Your task to perform on an android device: turn on showing notifications on the lock screen Image 0: 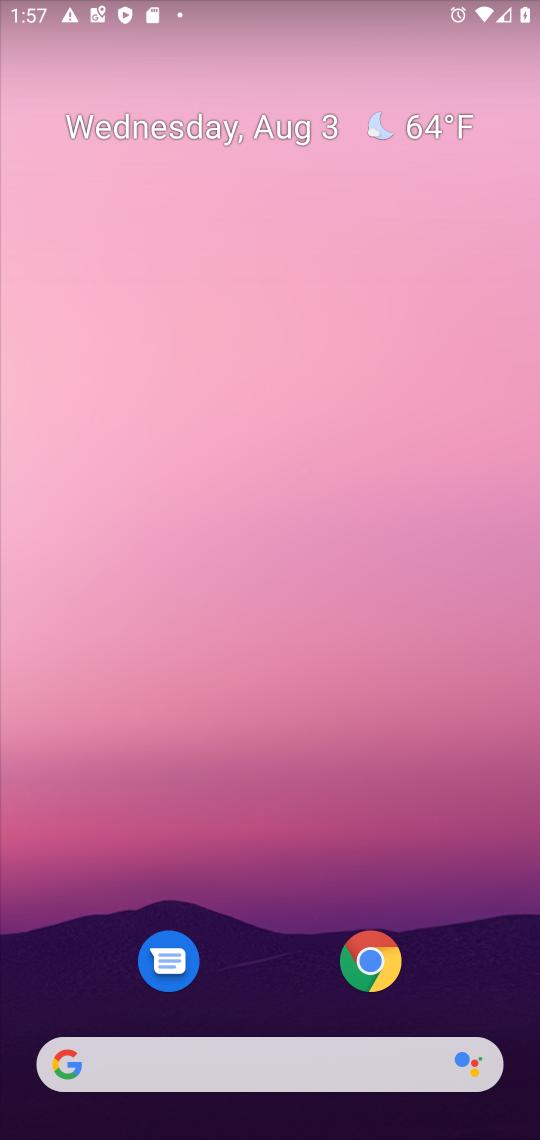
Step 0: drag from (275, 830) to (278, 26)
Your task to perform on an android device: turn on showing notifications on the lock screen Image 1: 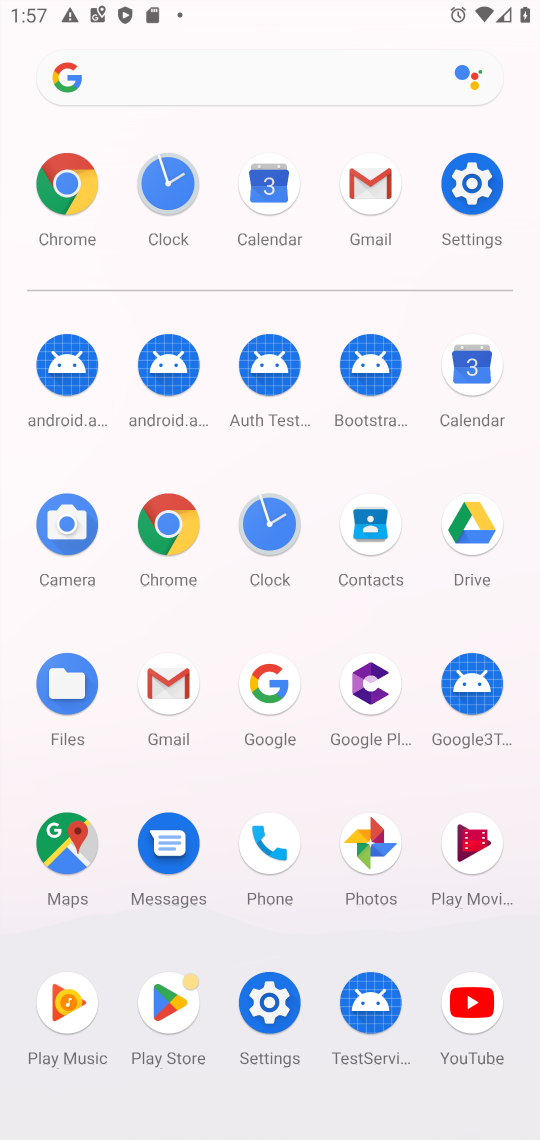
Step 1: click (473, 198)
Your task to perform on an android device: turn on showing notifications on the lock screen Image 2: 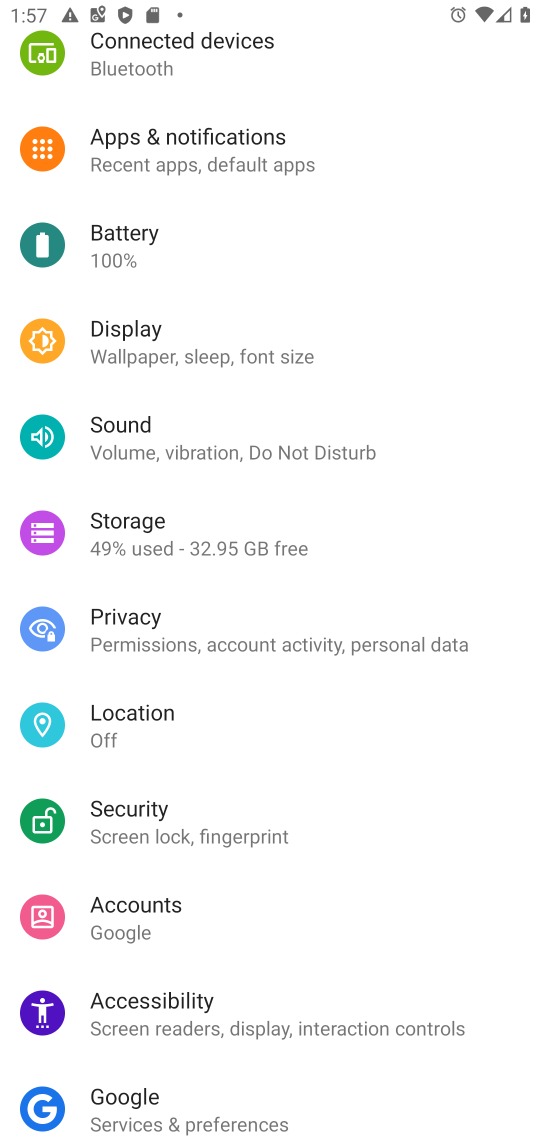
Step 2: click (185, 151)
Your task to perform on an android device: turn on showing notifications on the lock screen Image 3: 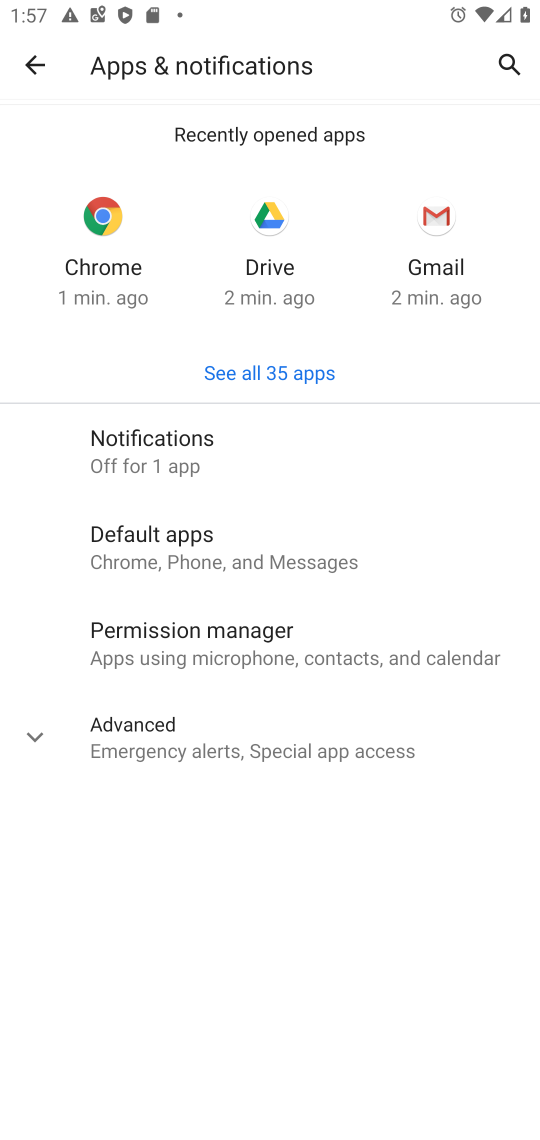
Step 3: click (139, 471)
Your task to perform on an android device: turn on showing notifications on the lock screen Image 4: 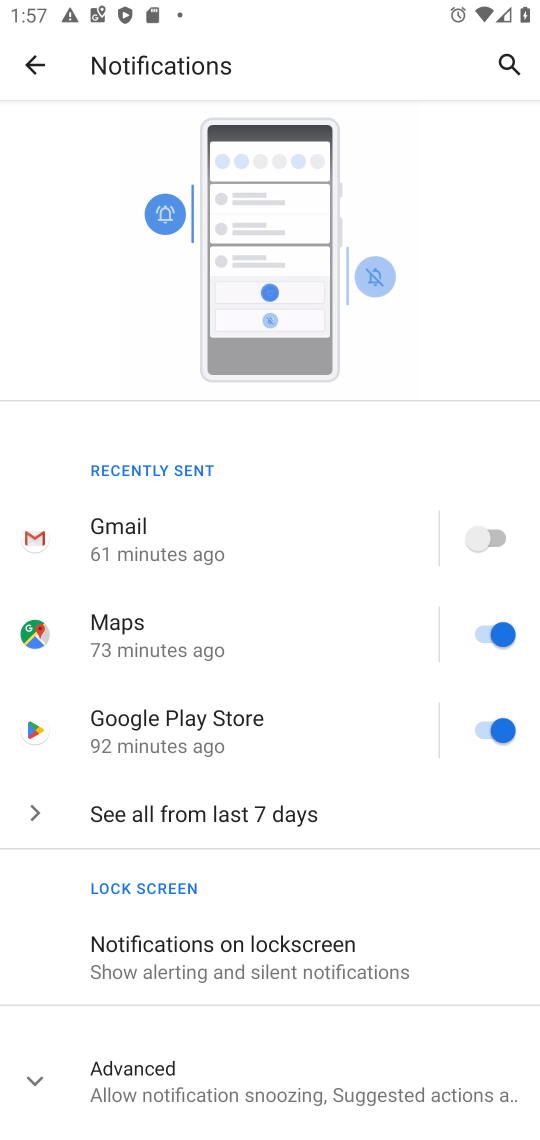
Step 4: click (181, 968)
Your task to perform on an android device: turn on showing notifications on the lock screen Image 5: 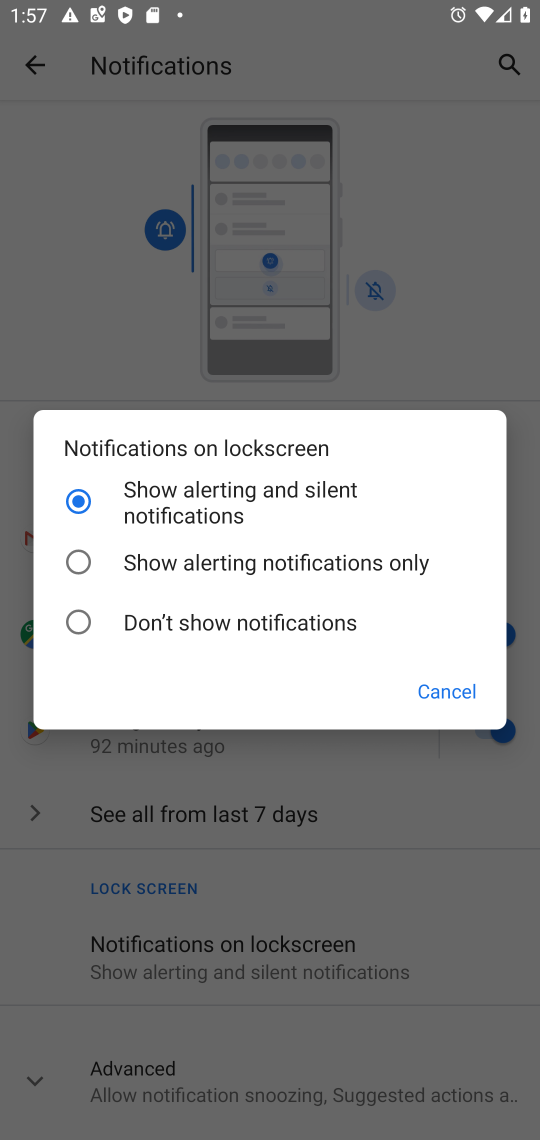
Step 5: task complete